Your task to perform on an android device: change the clock style Image 0: 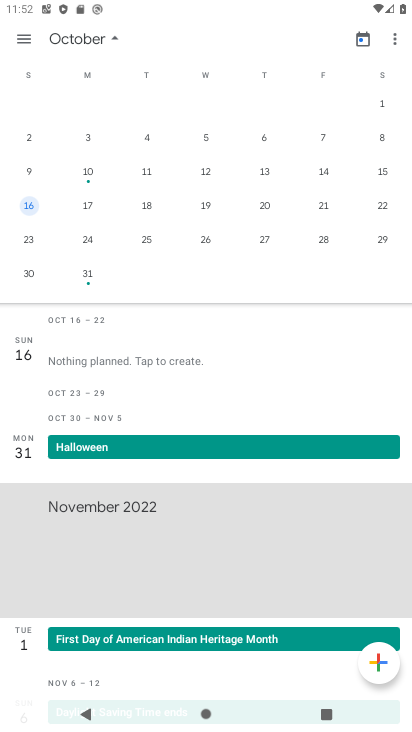
Step 0: press home button
Your task to perform on an android device: change the clock style Image 1: 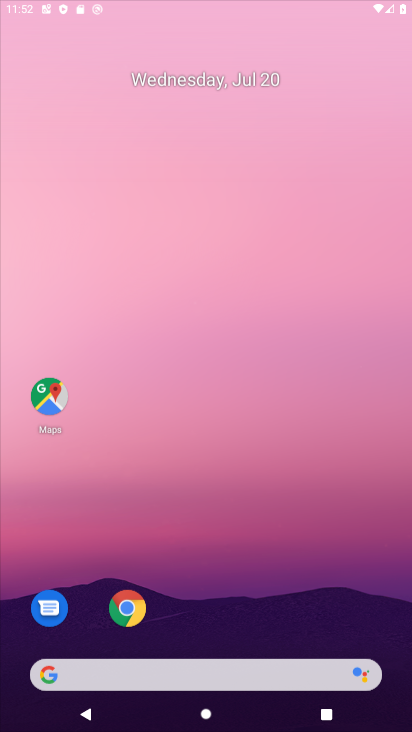
Step 1: drag from (388, 640) to (156, 70)
Your task to perform on an android device: change the clock style Image 2: 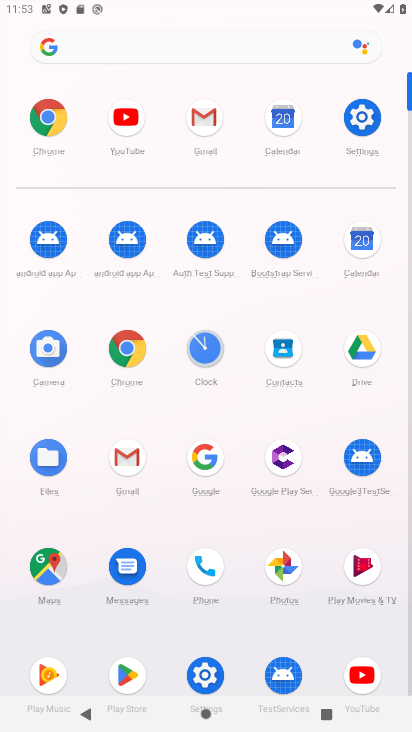
Step 2: click (204, 343)
Your task to perform on an android device: change the clock style Image 3: 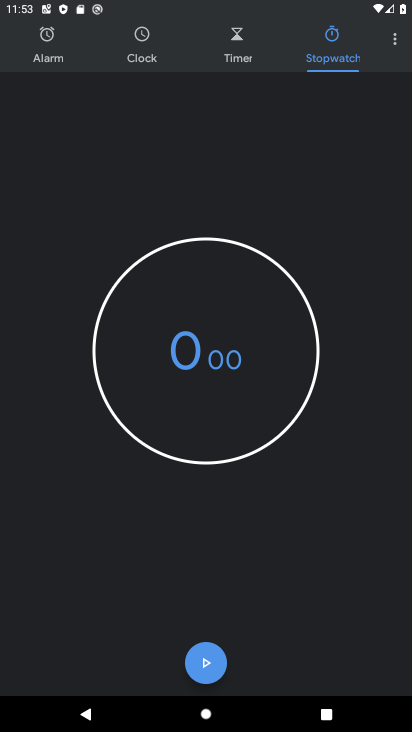
Step 3: click (403, 38)
Your task to perform on an android device: change the clock style Image 4: 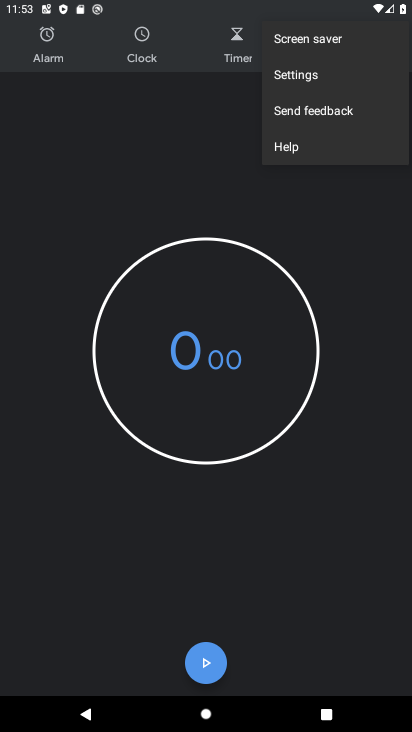
Step 4: click (281, 82)
Your task to perform on an android device: change the clock style Image 5: 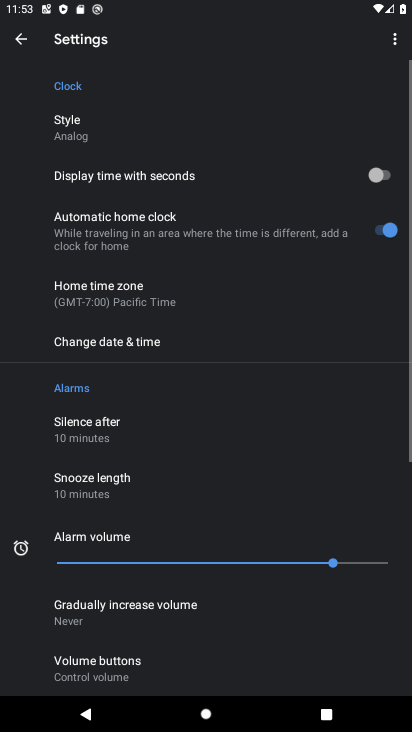
Step 5: click (91, 130)
Your task to perform on an android device: change the clock style Image 6: 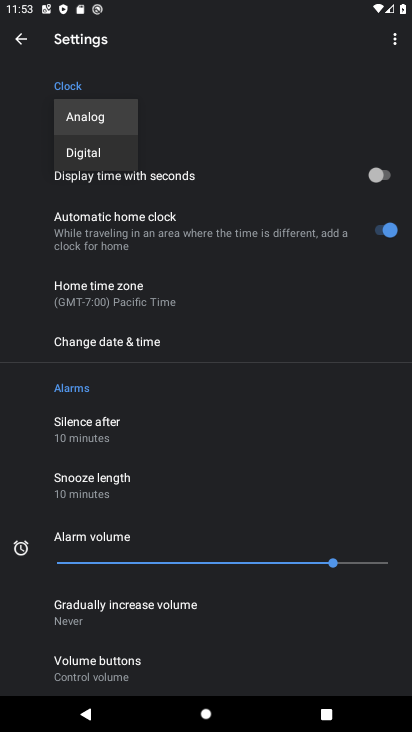
Step 6: click (86, 155)
Your task to perform on an android device: change the clock style Image 7: 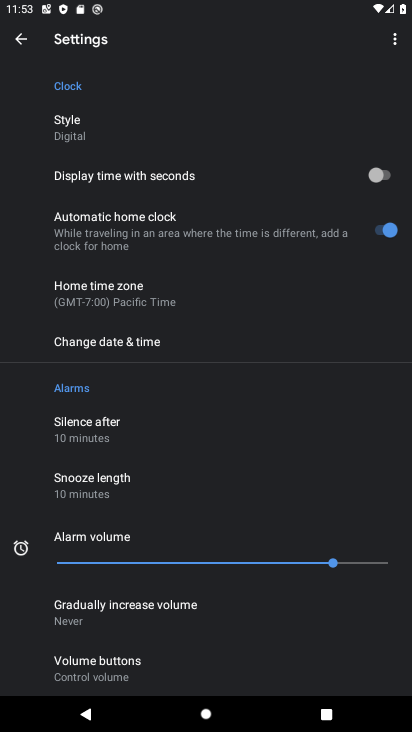
Step 7: task complete